Your task to perform on an android device: Open wifi settings Image 0: 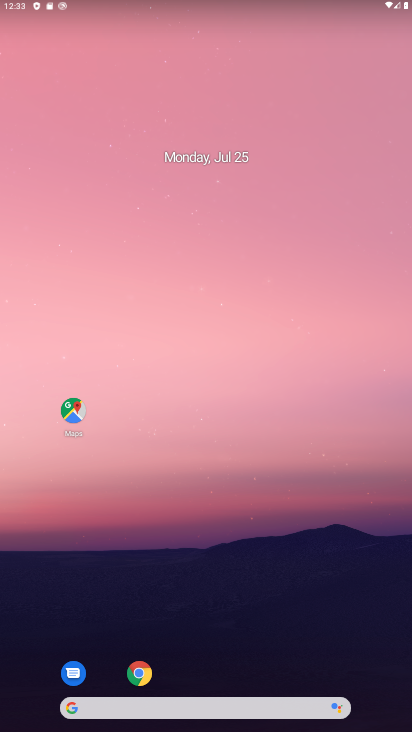
Step 0: drag from (140, 623) to (174, 0)
Your task to perform on an android device: Open wifi settings Image 1: 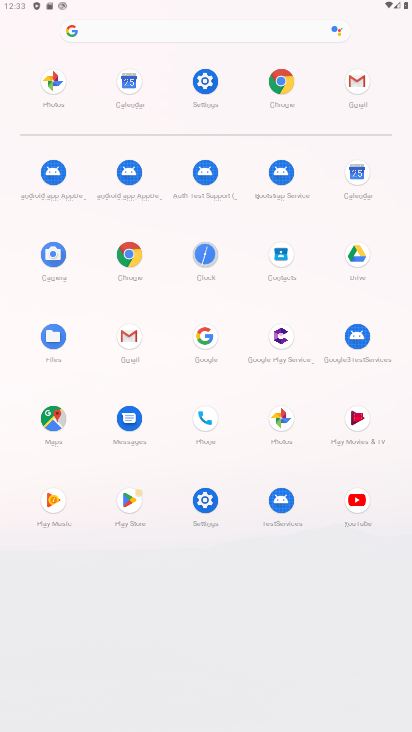
Step 1: click (206, 82)
Your task to perform on an android device: Open wifi settings Image 2: 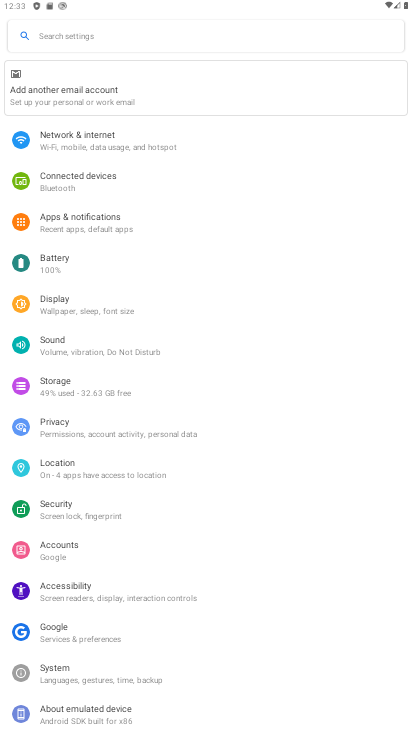
Step 2: click (154, 142)
Your task to perform on an android device: Open wifi settings Image 3: 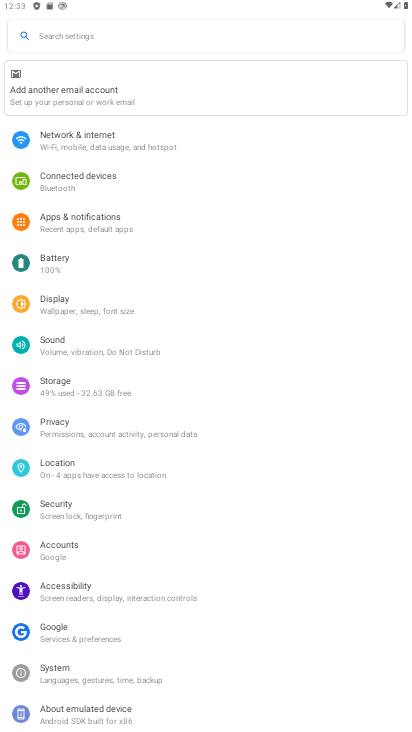
Step 3: click (154, 142)
Your task to perform on an android device: Open wifi settings Image 4: 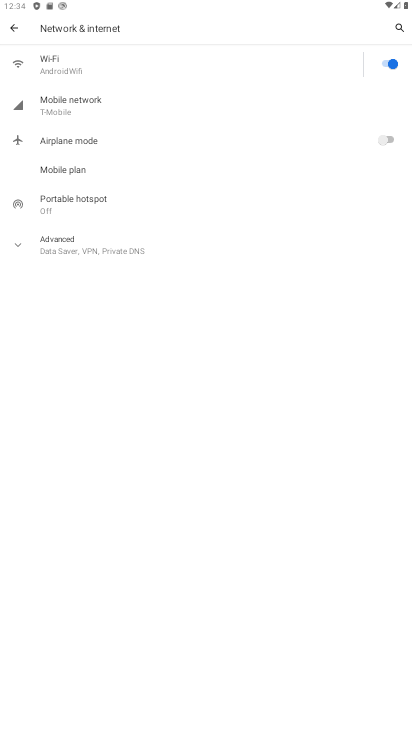
Step 4: click (116, 70)
Your task to perform on an android device: Open wifi settings Image 5: 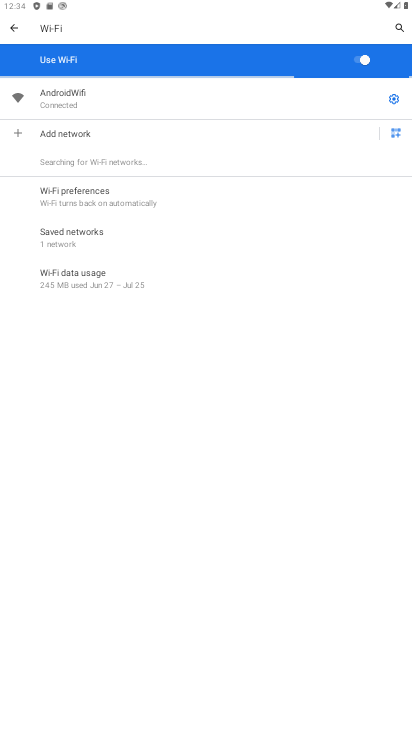
Step 5: click (398, 100)
Your task to perform on an android device: Open wifi settings Image 6: 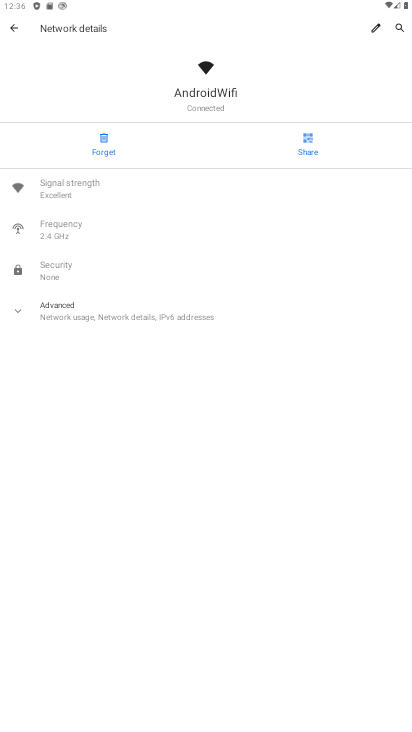
Step 6: task complete